Your task to perform on an android device: turn off picture-in-picture Image 0: 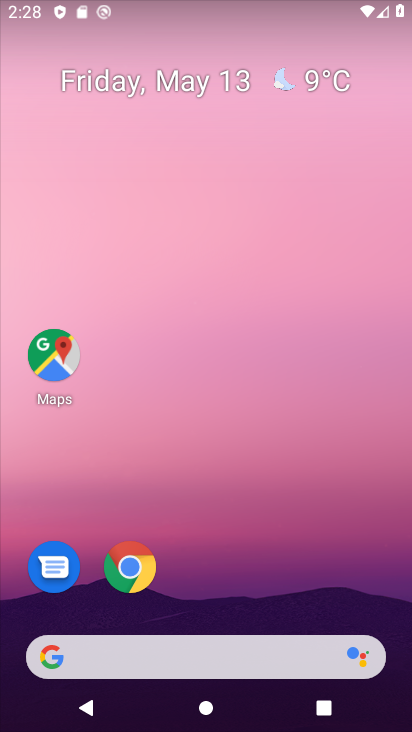
Step 0: click (135, 571)
Your task to perform on an android device: turn off picture-in-picture Image 1: 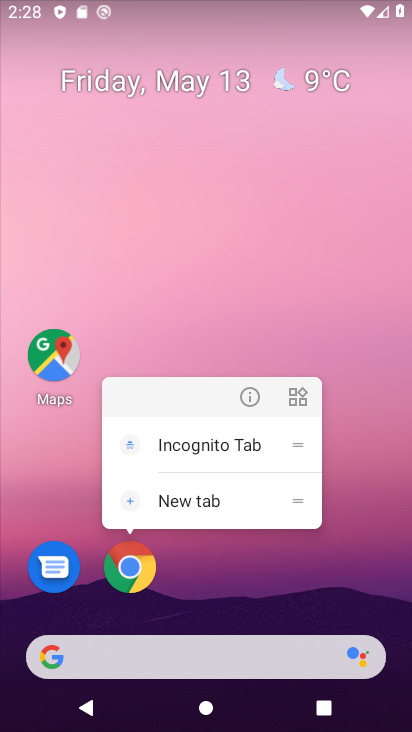
Step 1: click (251, 397)
Your task to perform on an android device: turn off picture-in-picture Image 2: 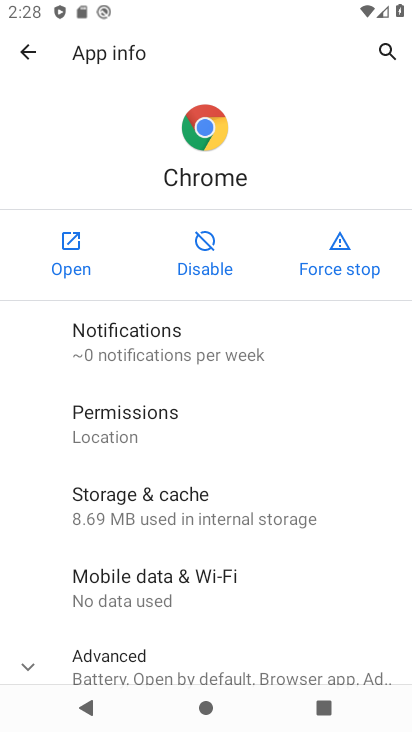
Step 2: drag from (321, 591) to (310, 151)
Your task to perform on an android device: turn off picture-in-picture Image 3: 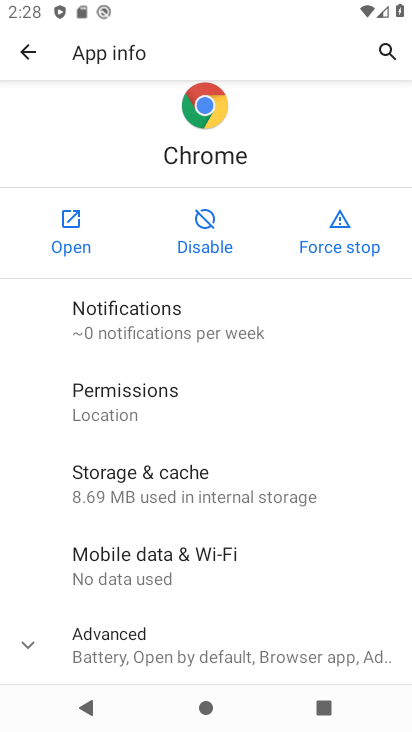
Step 3: click (29, 645)
Your task to perform on an android device: turn off picture-in-picture Image 4: 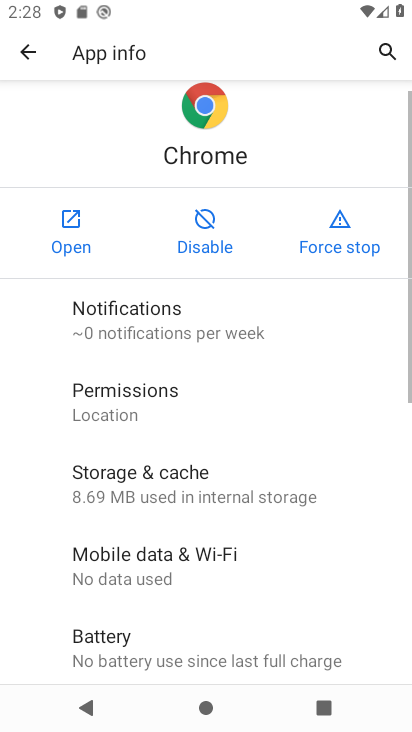
Step 4: drag from (275, 587) to (265, 106)
Your task to perform on an android device: turn off picture-in-picture Image 5: 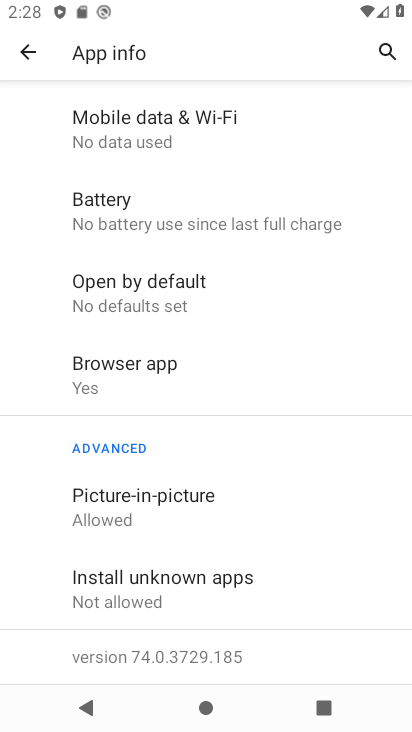
Step 5: click (128, 501)
Your task to perform on an android device: turn off picture-in-picture Image 6: 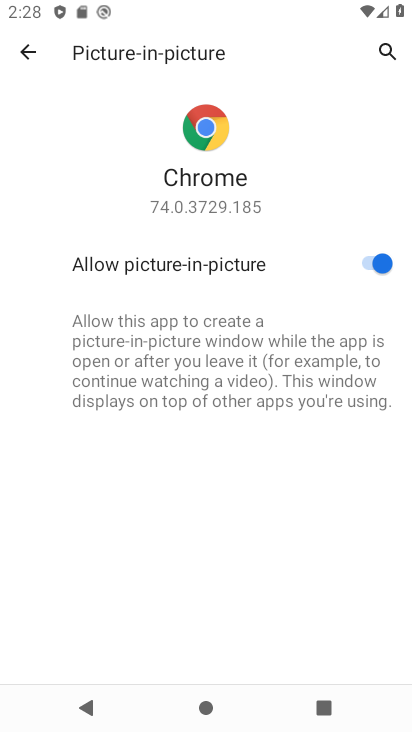
Step 6: click (389, 261)
Your task to perform on an android device: turn off picture-in-picture Image 7: 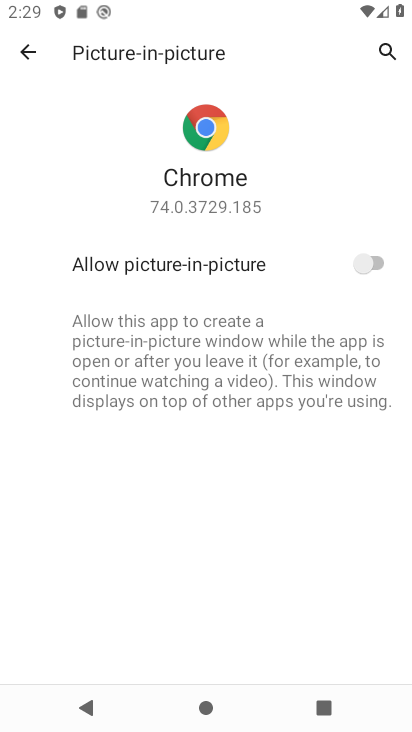
Step 7: task complete